Your task to perform on an android device: Open sound settings Image 0: 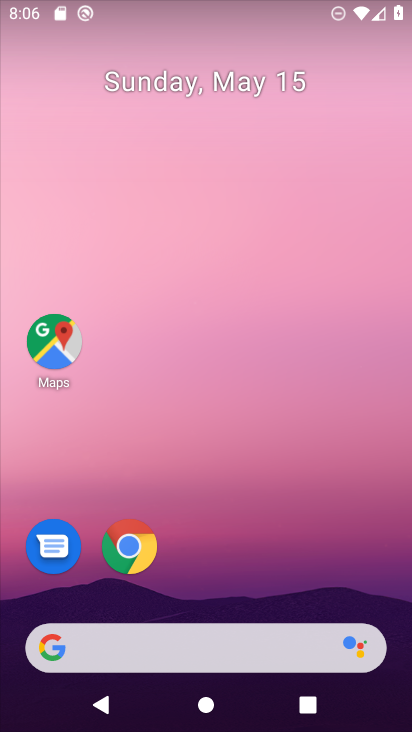
Step 0: drag from (262, 563) to (297, 15)
Your task to perform on an android device: Open sound settings Image 1: 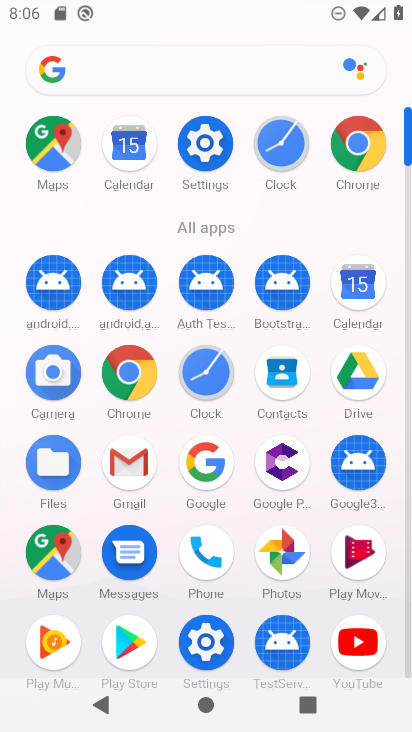
Step 1: click (205, 129)
Your task to perform on an android device: Open sound settings Image 2: 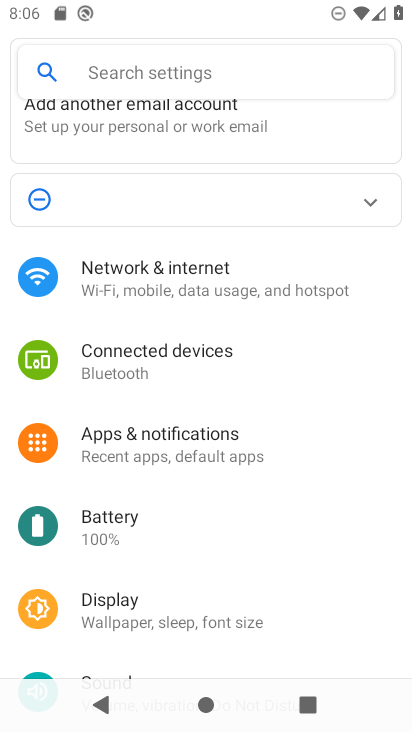
Step 2: drag from (135, 569) to (170, 217)
Your task to perform on an android device: Open sound settings Image 3: 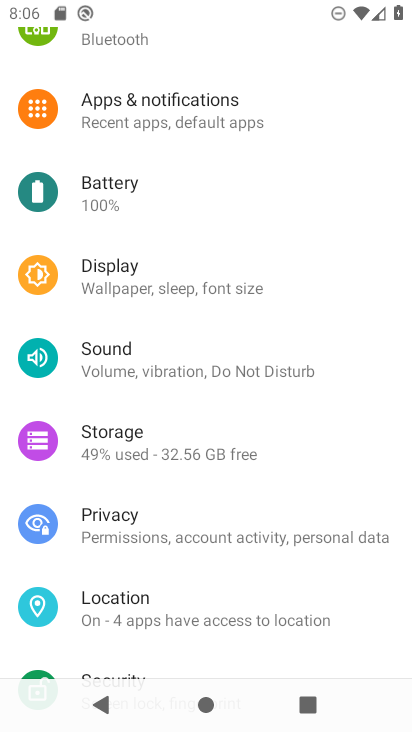
Step 3: click (124, 347)
Your task to perform on an android device: Open sound settings Image 4: 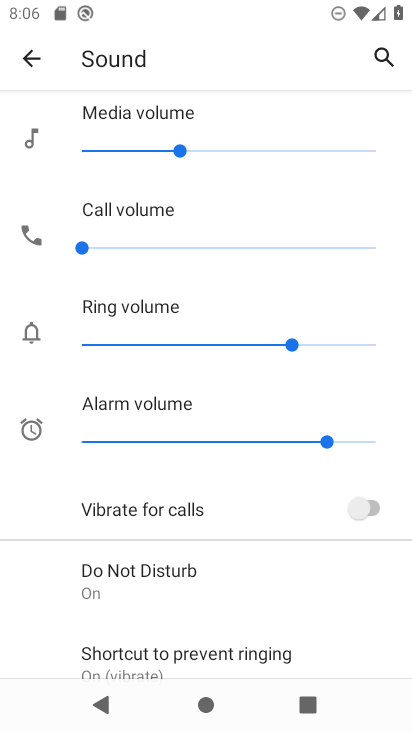
Step 4: task complete